Your task to perform on an android device: turn pop-ups on in chrome Image 0: 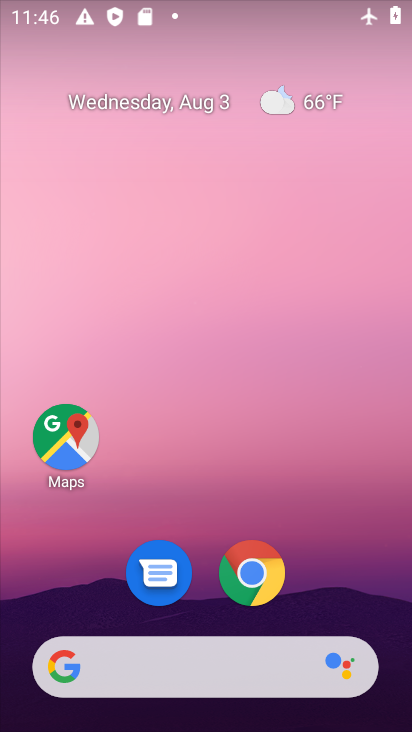
Step 0: drag from (339, 561) to (347, 88)
Your task to perform on an android device: turn pop-ups on in chrome Image 1: 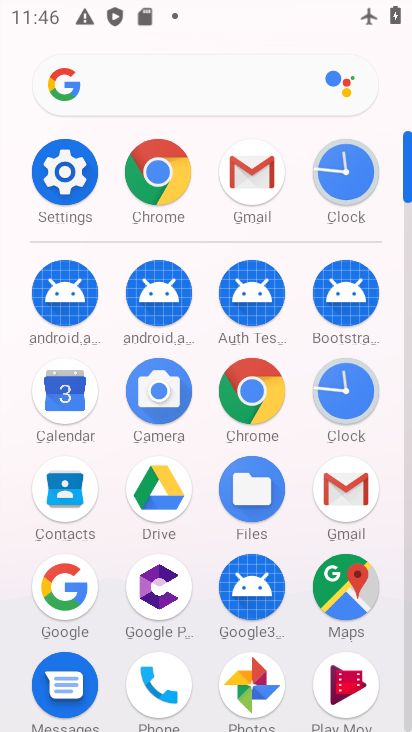
Step 1: click (256, 395)
Your task to perform on an android device: turn pop-ups on in chrome Image 2: 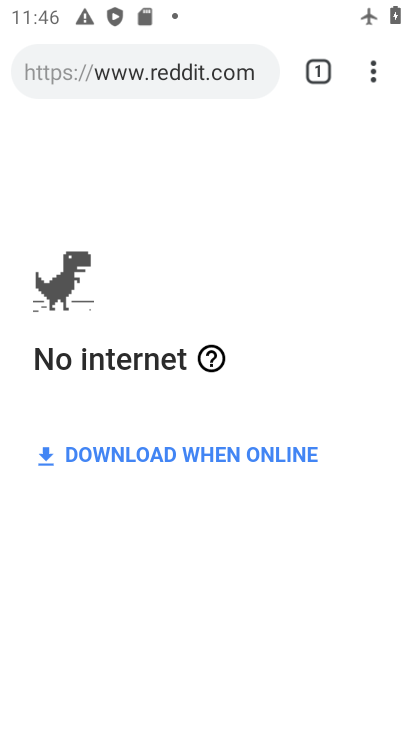
Step 2: click (386, 62)
Your task to perform on an android device: turn pop-ups on in chrome Image 3: 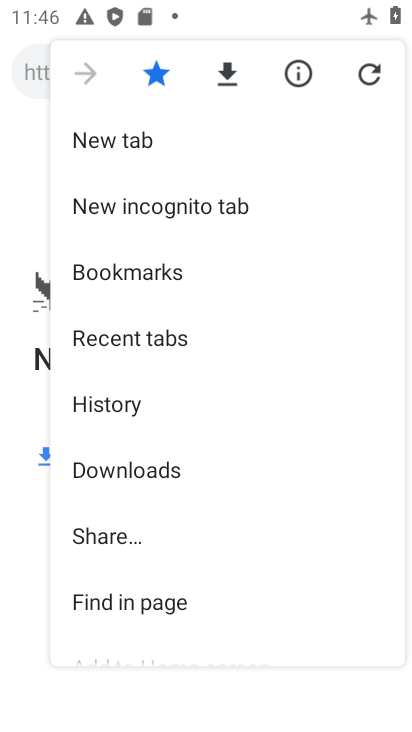
Step 3: drag from (243, 517) to (266, 198)
Your task to perform on an android device: turn pop-ups on in chrome Image 4: 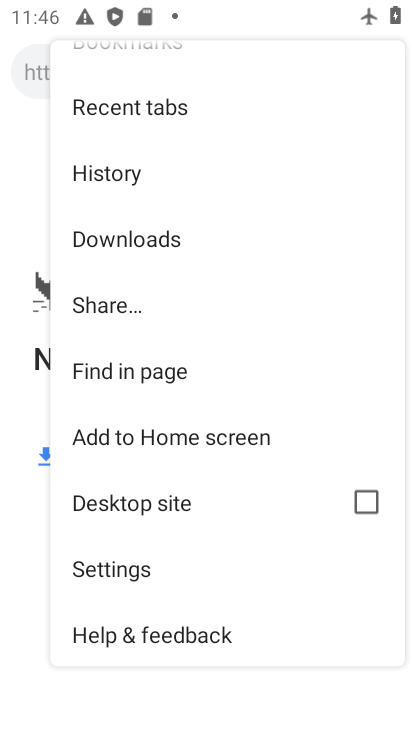
Step 4: click (120, 578)
Your task to perform on an android device: turn pop-ups on in chrome Image 5: 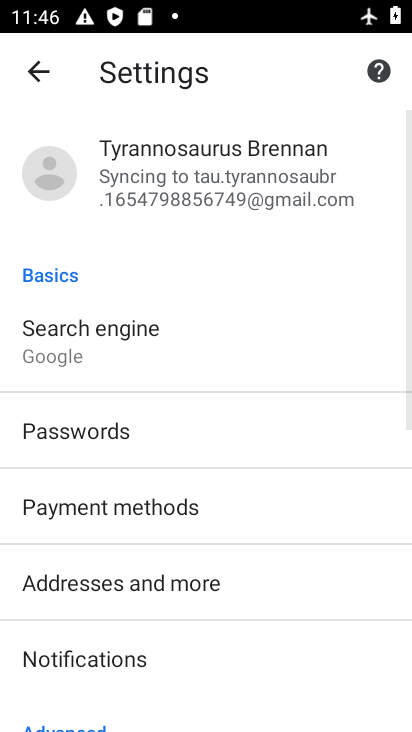
Step 5: drag from (322, 593) to (318, 200)
Your task to perform on an android device: turn pop-ups on in chrome Image 6: 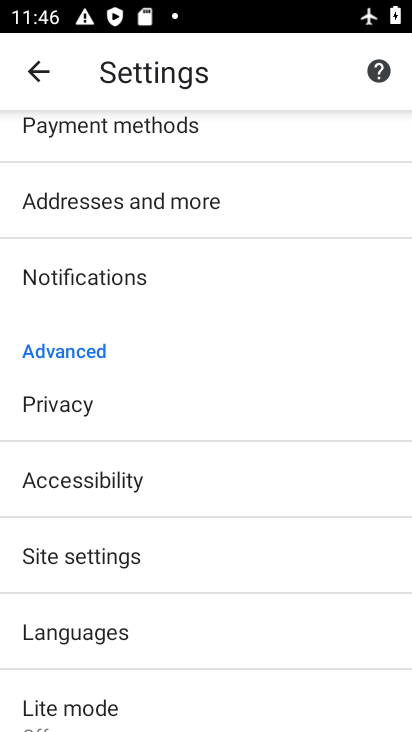
Step 6: drag from (295, 603) to (318, 280)
Your task to perform on an android device: turn pop-ups on in chrome Image 7: 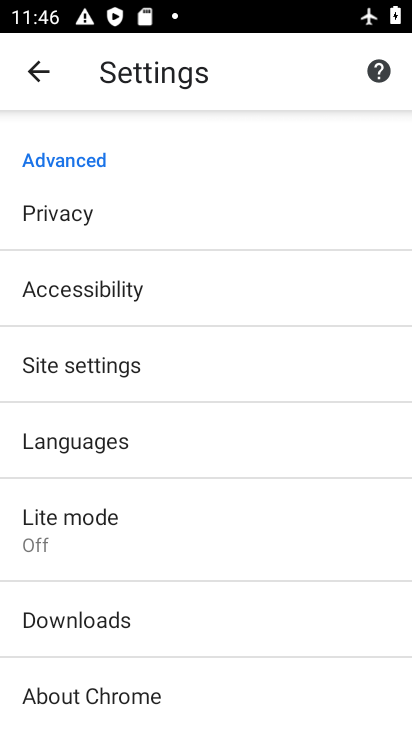
Step 7: click (165, 367)
Your task to perform on an android device: turn pop-ups on in chrome Image 8: 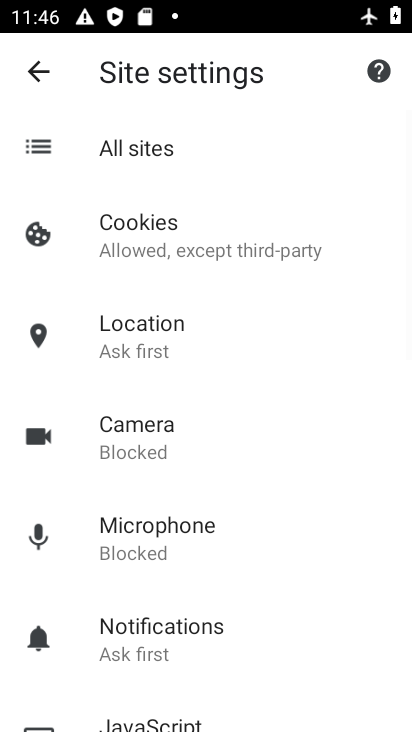
Step 8: drag from (293, 608) to (332, 289)
Your task to perform on an android device: turn pop-ups on in chrome Image 9: 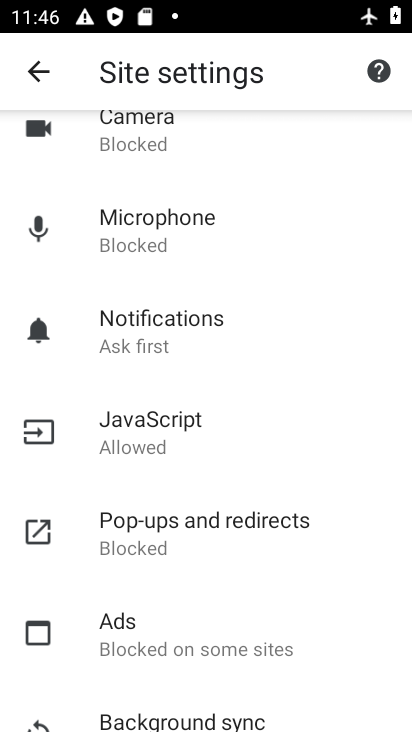
Step 9: click (163, 519)
Your task to perform on an android device: turn pop-ups on in chrome Image 10: 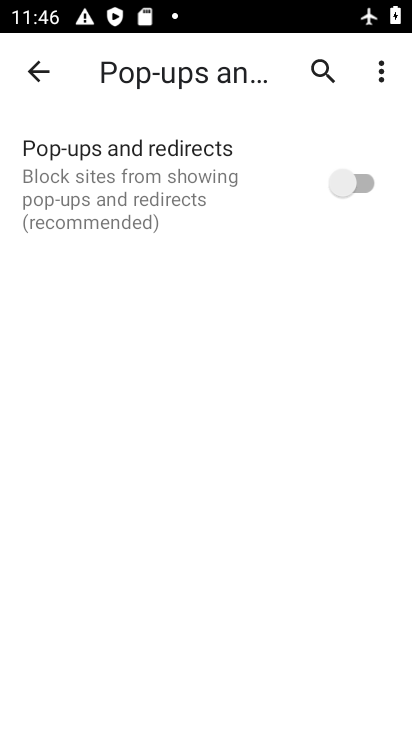
Step 10: click (340, 175)
Your task to perform on an android device: turn pop-ups on in chrome Image 11: 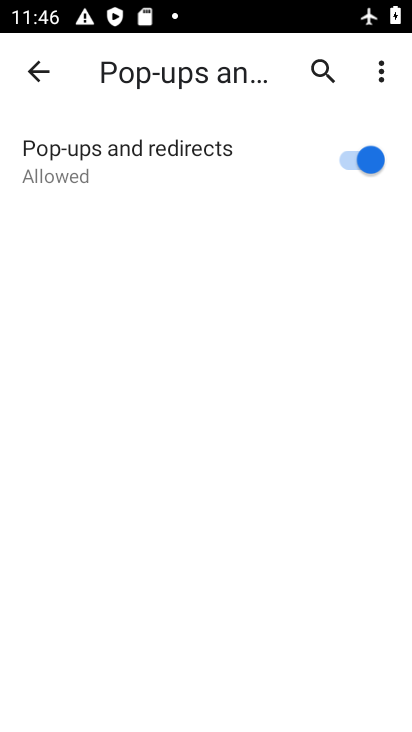
Step 11: task complete